Your task to perform on an android device: open a bookmark in the chrome app Image 0: 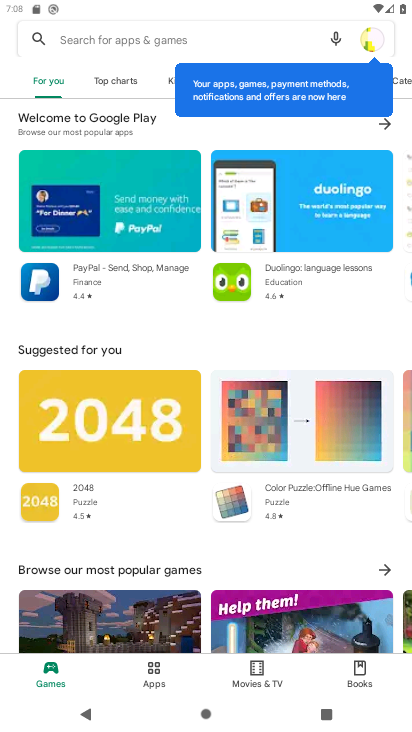
Step 0: press home button
Your task to perform on an android device: open a bookmark in the chrome app Image 1: 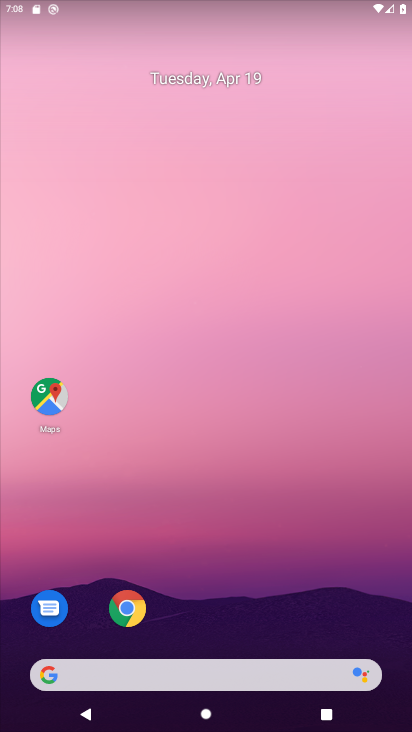
Step 1: drag from (270, 586) to (325, 101)
Your task to perform on an android device: open a bookmark in the chrome app Image 2: 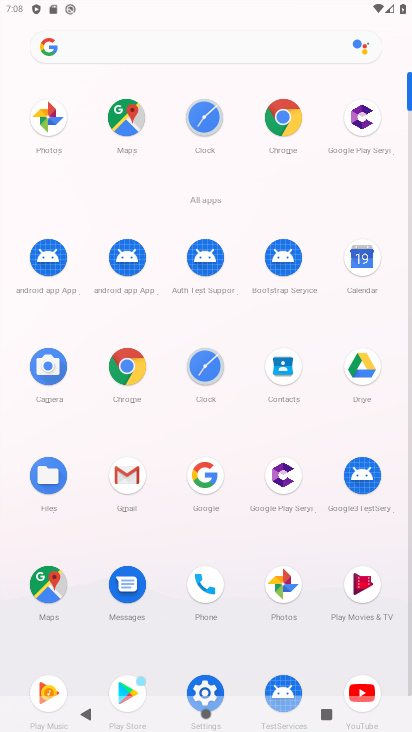
Step 2: click (124, 373)
Your task to perform on an android device: open a bookmark in the chrome app Image 3: 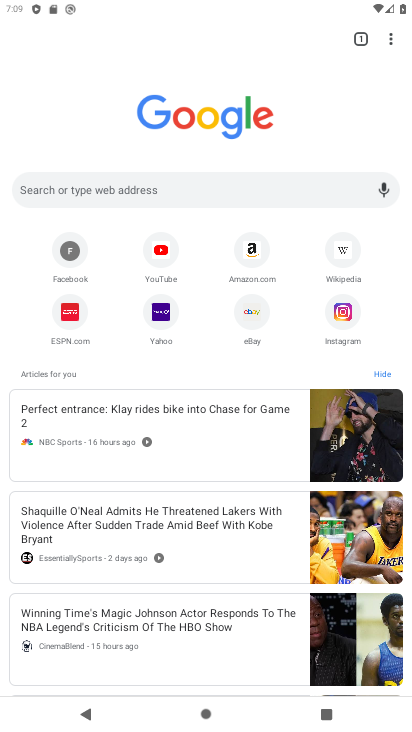
Step 3: task complete